Your task to perform on an android device: Go to accessibility settings Image 0: 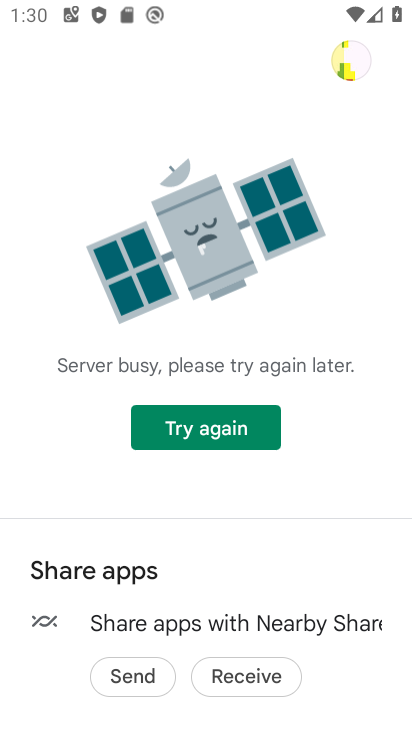
Step 0: press home button
Your task to perform on an android device: Go to accessibility settings Image 1: 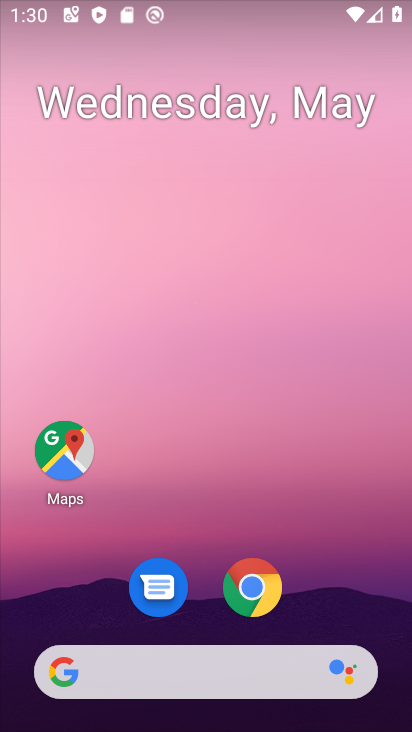
Step 1: drag from (359, 621) to (276, 3)
Your task to perform on an android device: Go to accessibility settings Image 2: 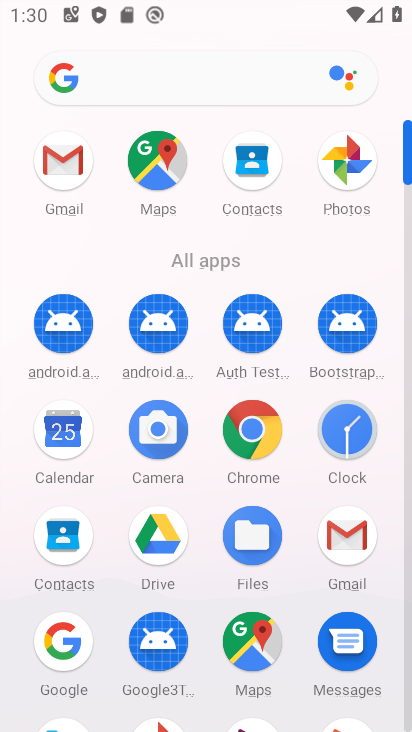
Step 2: drag from (293, 520) to (296, 103)
Your task to perform on an android device: Go to accessibility settings Image 3: 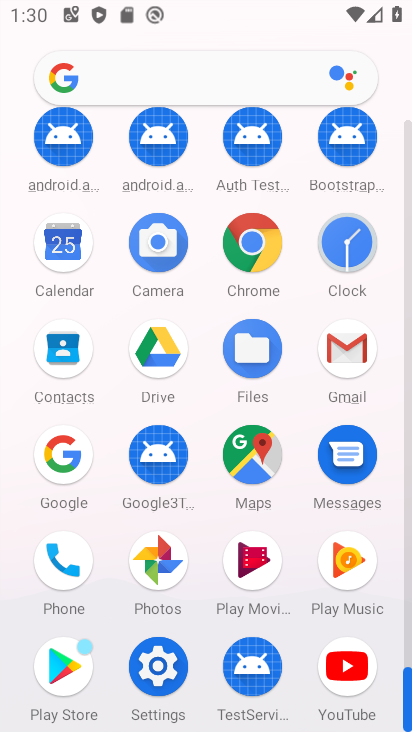
Step 3: click (157, 643)
Your task to perform on an android device: Go to accessibility settings Image 4: 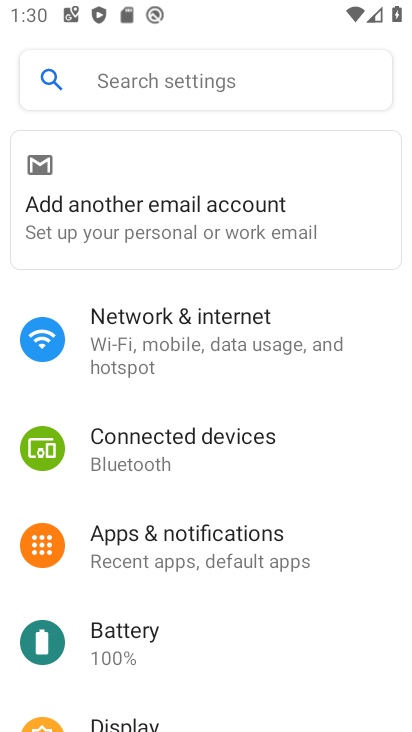
Step 4: drag from (195, 649) to (232, 110)
Your task to perform on an android device: Go to accessibility settings Image 5: 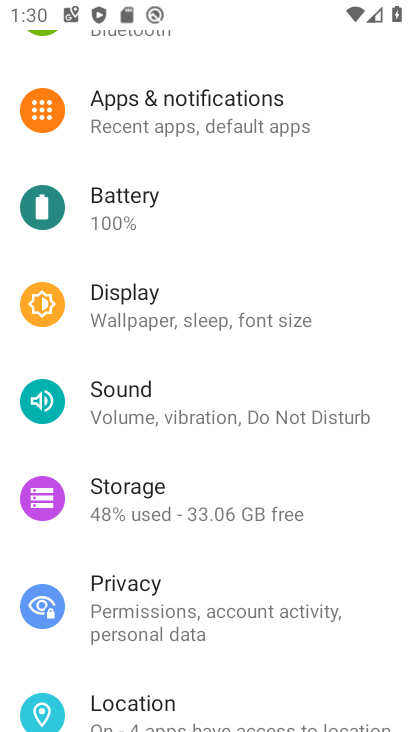
Step 5: drag from (236, 637) to (243, 169)
Your task to perform on an android device: Go to accessibility settings Image 6: 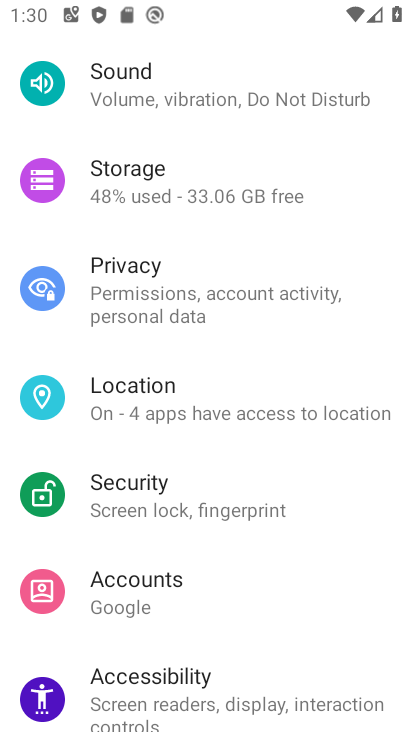
Step 6: drag from (206, 636) to (190, 288)
Your task to perform on an android device: Go to accessibility settings Image 7: 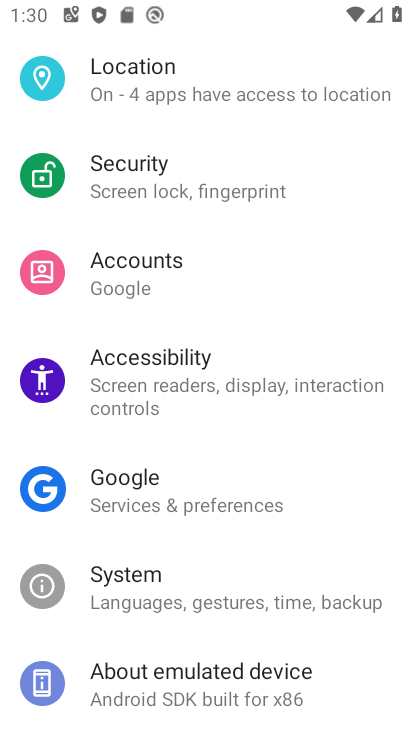
Step 7: click (177, 408)
Your task to perform on an android device: Go to accessibility settings Image 8: 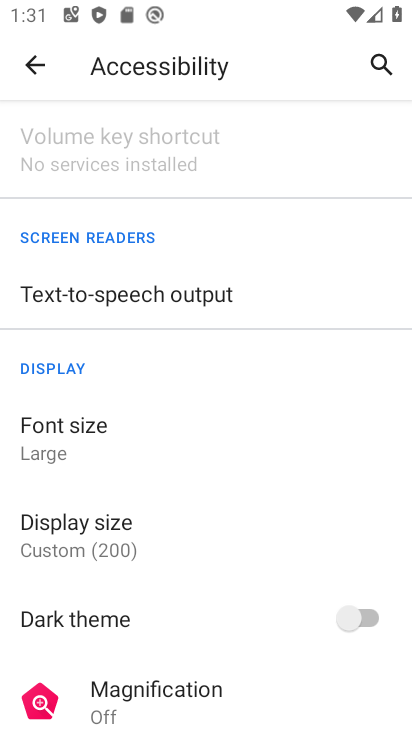
Step 8: task complete